Your task to perform on an android device: What is the news today? Image 0: 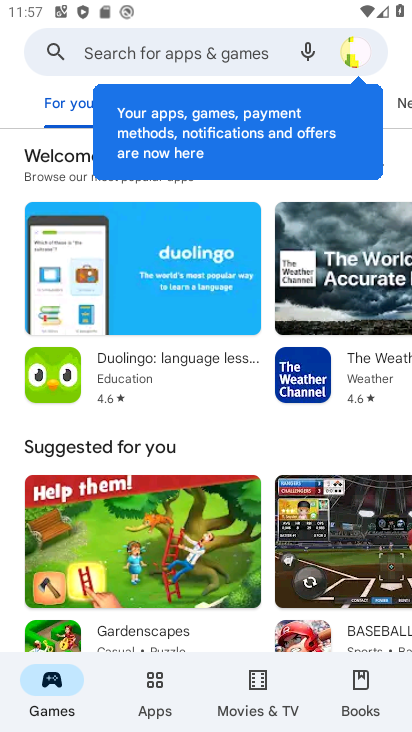
Step 0: press home button
Your task to perform on an android device: What is the news today? Image 1: 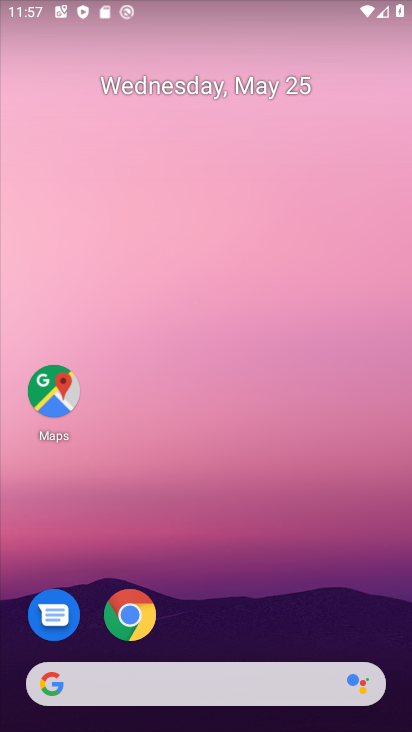
Step 1: drag from (232, 629) to (201, 284)
Your task to perform on an android device: What is the news today? Image 2: 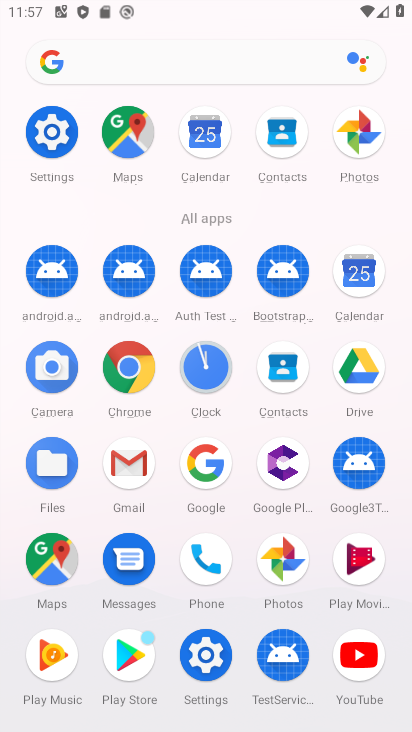
Step 2: click (137, 373)
Your task to perform on an android device: What is the news today? Image 3: 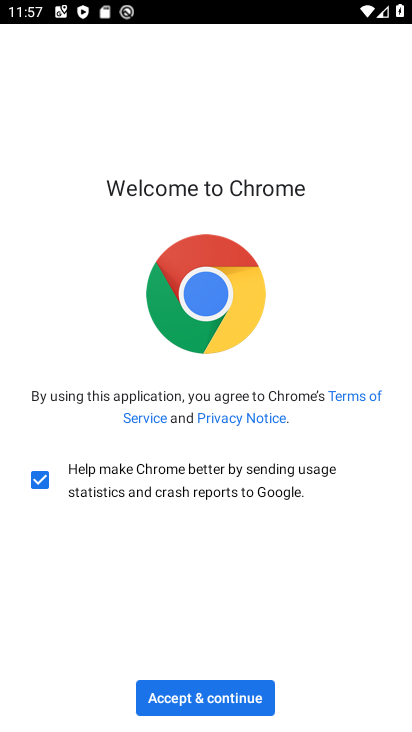
Step 3: click (195, 688)
Your task to perform on an android device: What is the news today? Image 4: 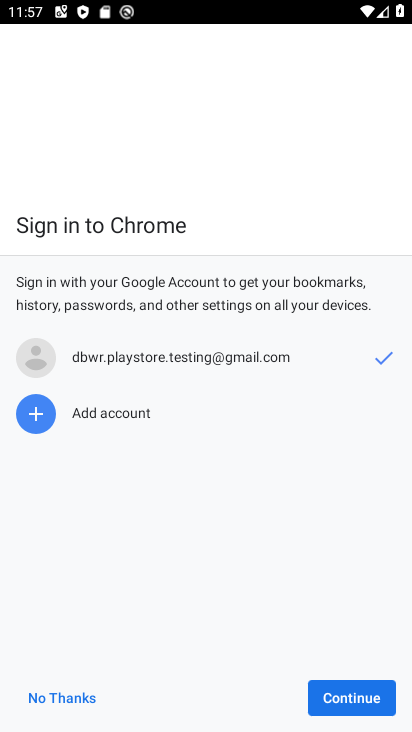
Step 4: click (315, 699)
Your task to perform on an android device: What is the news today? Image 5: 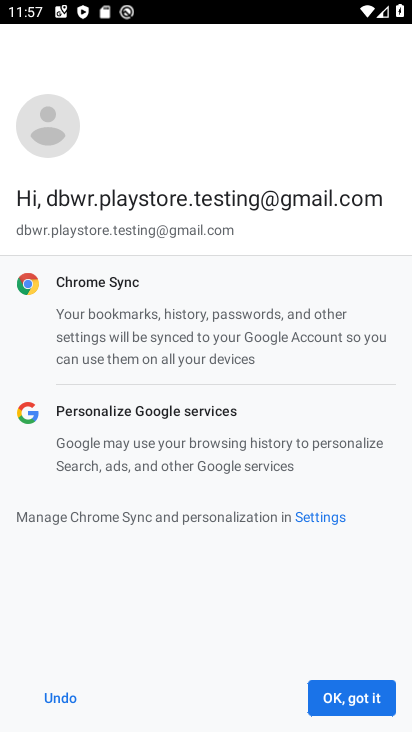
Step 5: click (315, 699)
Your task to perform on an android device: What is the news today? Image 6: 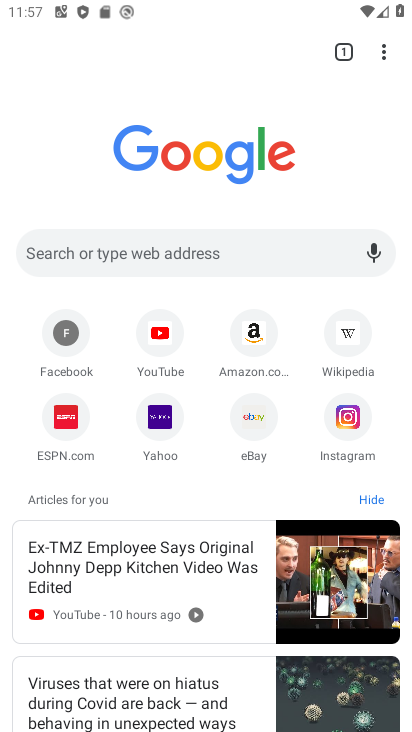
Step 6: click (214, 250)
Your task to perform on an android device: What is the news today? Image 7: 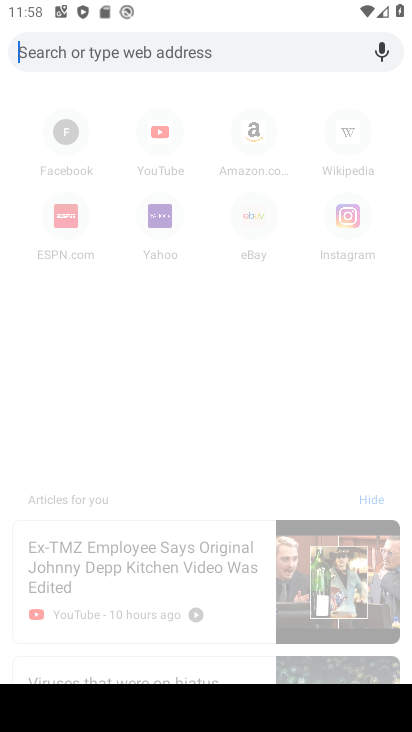
Step 7: type "What is the news today?"
Your task to perform on an android device: What is the news today? Image 8: 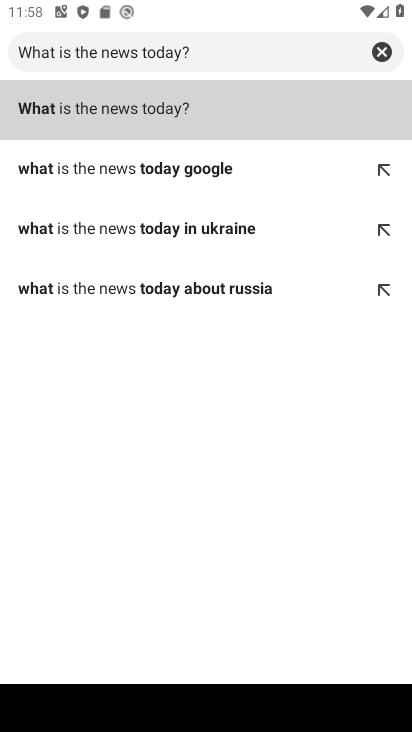
Step 8: click (86, 106)
Your task to perform on an android device: What is the news today? Image 9: 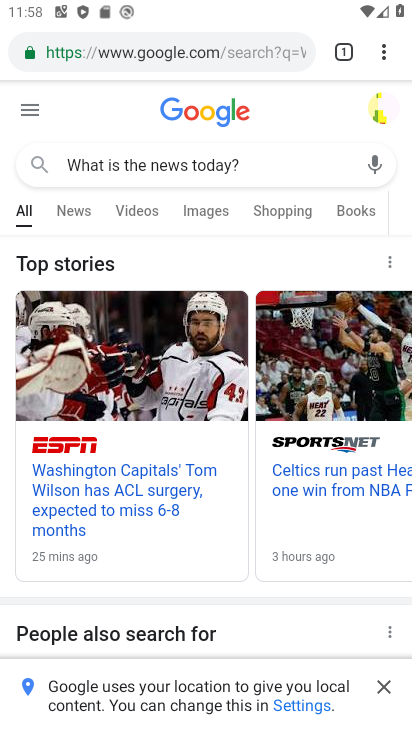
Step 9: task complete